Your task to perform on an android device: Do I have any events today? Image 0: 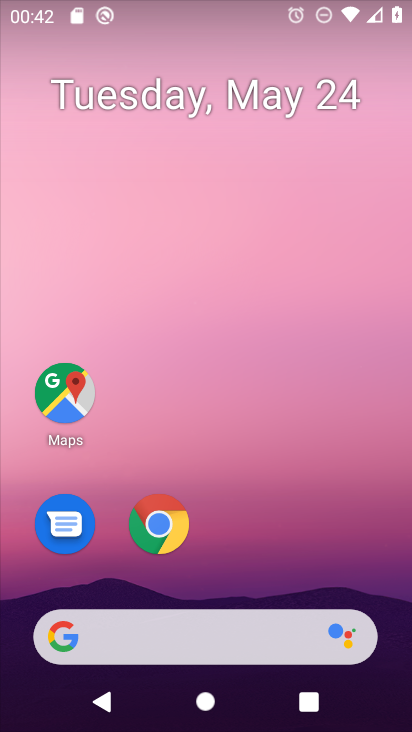
Step 0: drag from (245, 568) to (263, 92)
Your task to perform on an android device: Do I have any events today? Image 1: 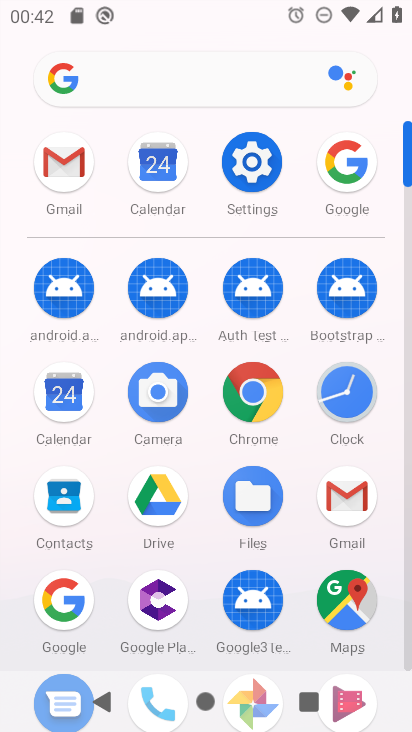
Step 1: click (156, 188)
Your task to perform on an android device: Do I have any events today? Image 2: 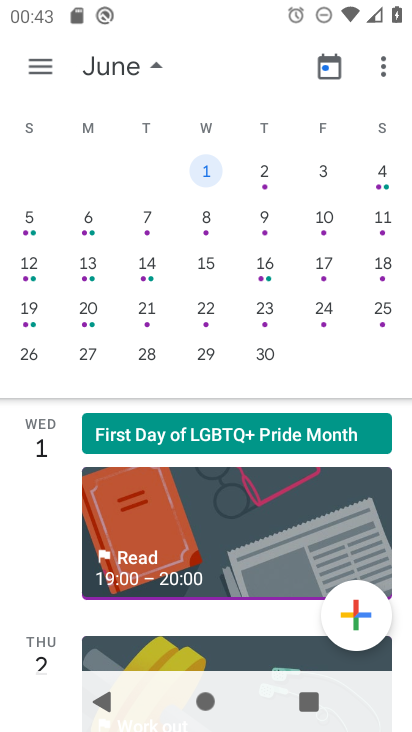
Step 2: drag from (79, 259) to (354, 252)
Your task to perform on an android device: Do I have any events today? Image 3: 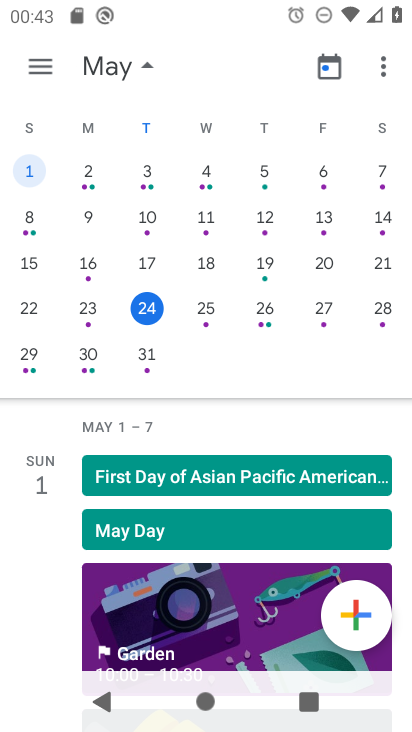
Step 3: click (140, 316)
Your task to perform on an android device: Do I have any events today? Image 4: 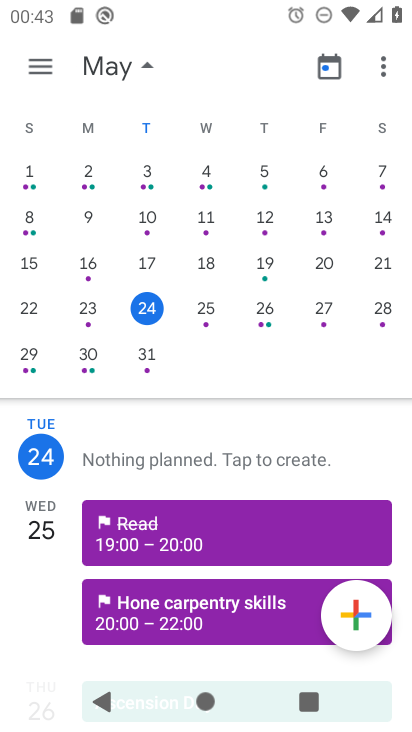
Step 4: click (142, 316)
Your task to perform on an android device: Do I have any events today? Image 5: 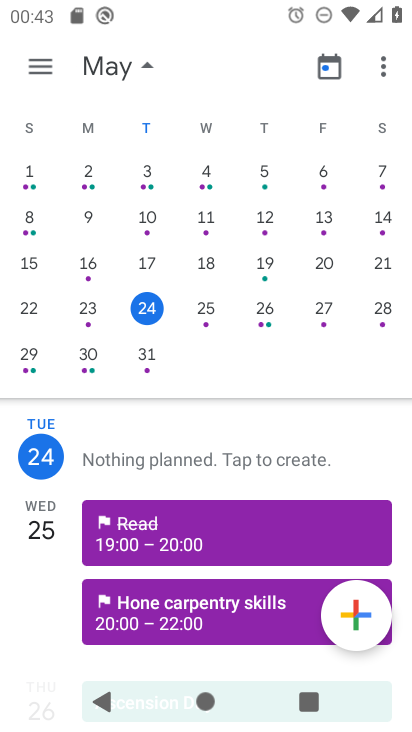
Step 5: click (140, 322)
Your task to perform on an android device: Do I have any events today? Image 6: 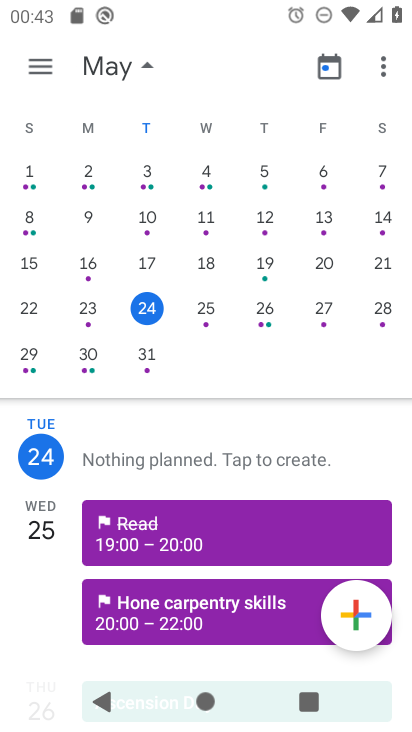
Step 6: task complete